Your task to perform on an android device: What's the weather today? Image 0: 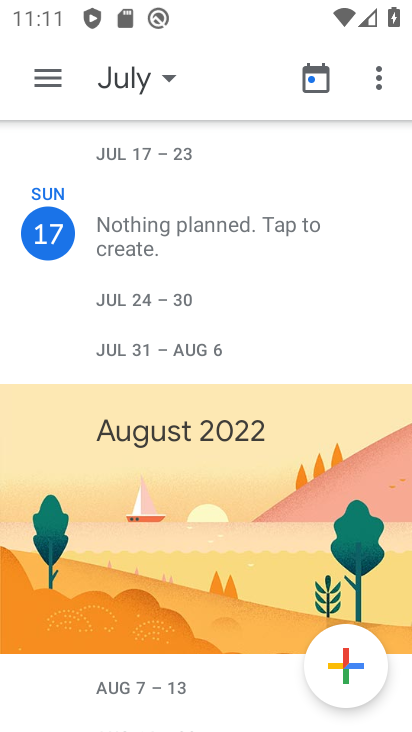
Step 0: press back button
Your task to perform on an android device: What's the weather today? Image 1: 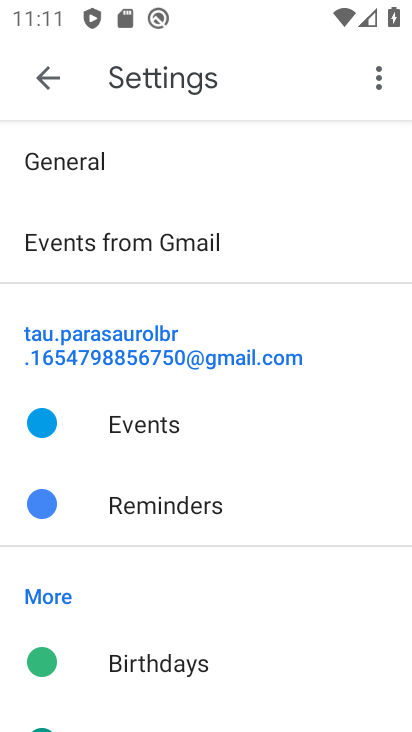
Step 1: press back button
Your task to perform on an android device: What's the weather today? Image 2: 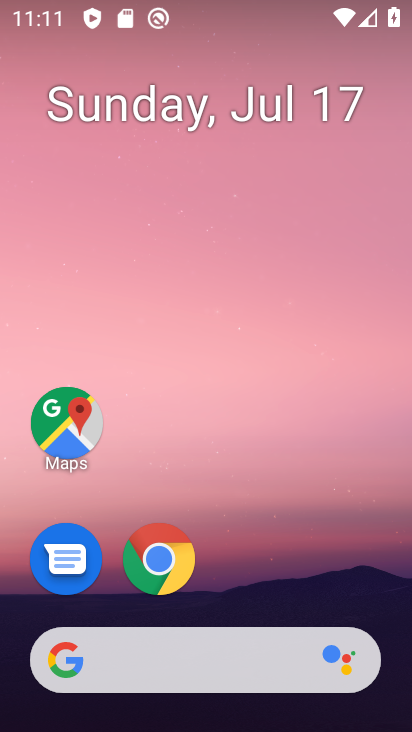
Step 2: click (185, 674)
Your task to perform on an android device: What's the weather today? Image 3: 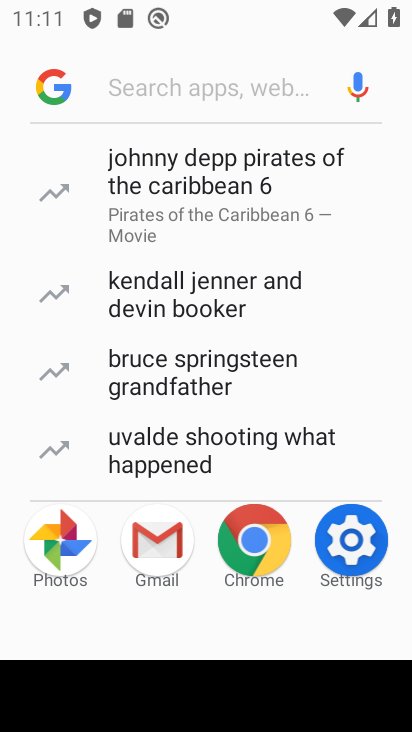
Step 3: click (143, 81)
Your task to perform on an android device: What's the weather today? Image 4: 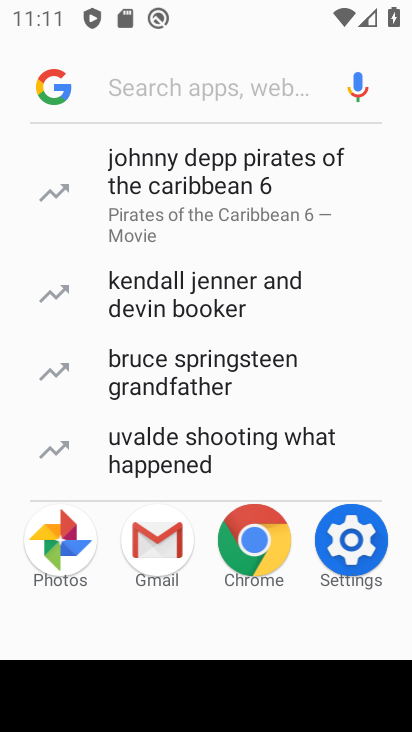
Step 4: type "weather"
Your task to perform on an android device: What's the weather today? Image 5: 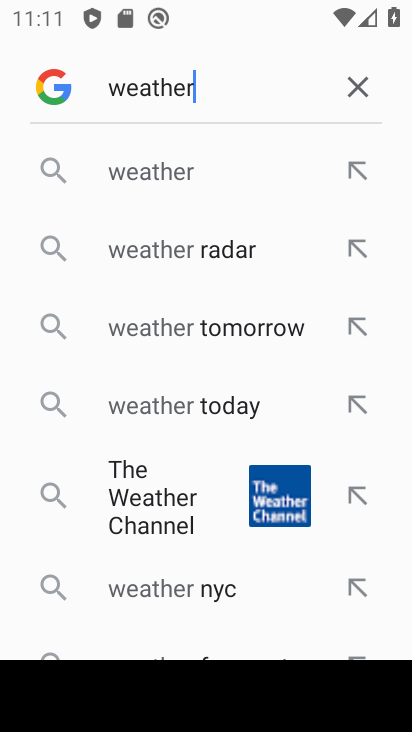
Step 5: click (151, 185)
Your task to perform on an android device: What's the weather today? Image 6: 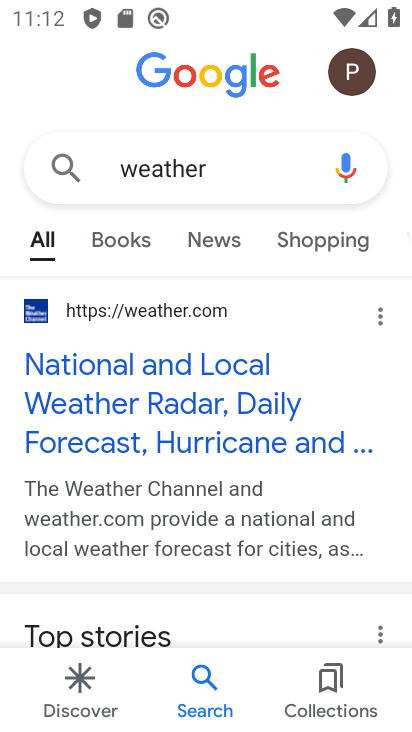
Step 6: drag from (205, 542) to (232, 679)
Your task to perform on an android device: What's the weather today? Image 7: 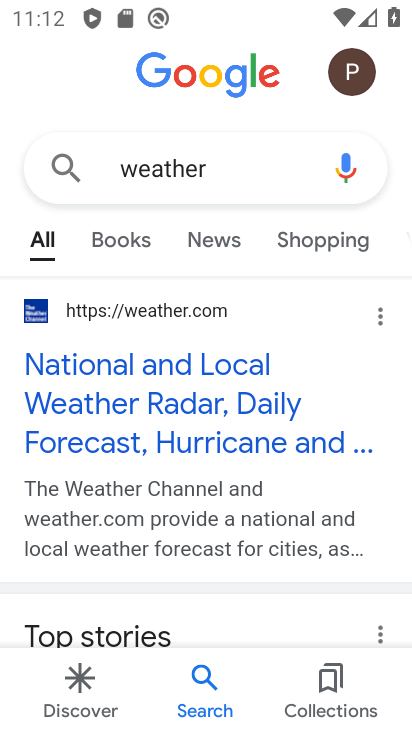
Step 7: click (183, 379)
Your task to perform on an android device: What's the weather today? Image 8: 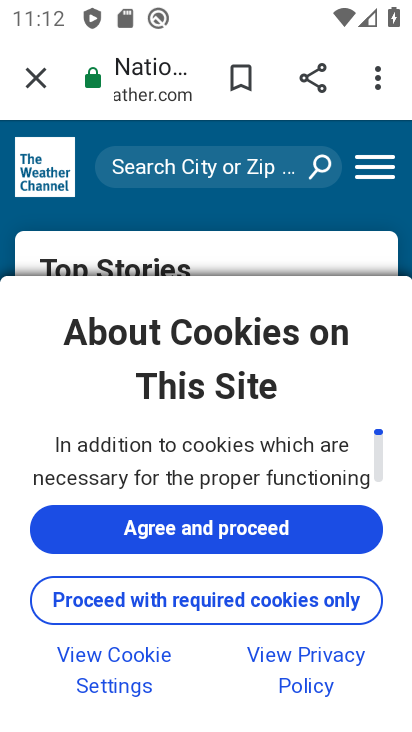
Step 8: click (43, 77)
Your task to perform on an android device: What's the weather today? Image 9: 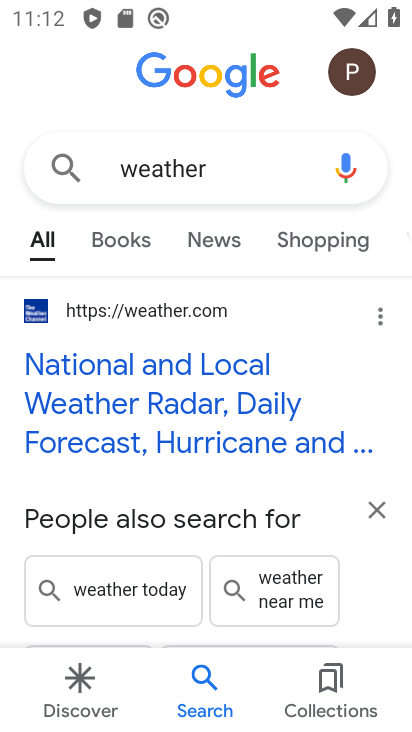
Step 9: press back button
Your task to perform on an android device: What's the weather today? Image 10: 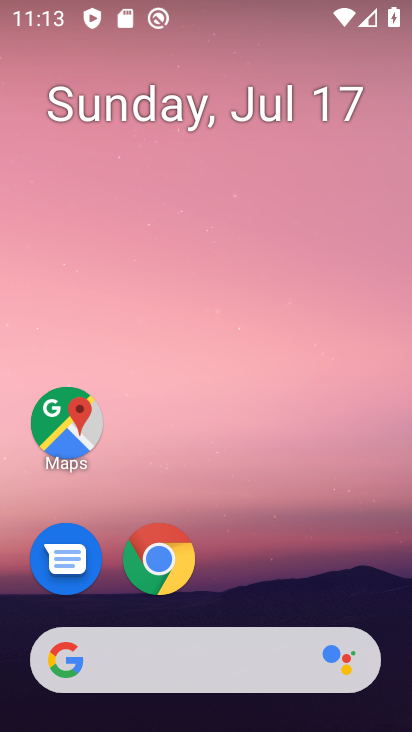
Step 10: click (149, 550)
Your task to perform on an android device: What's the weather today? Image 11: 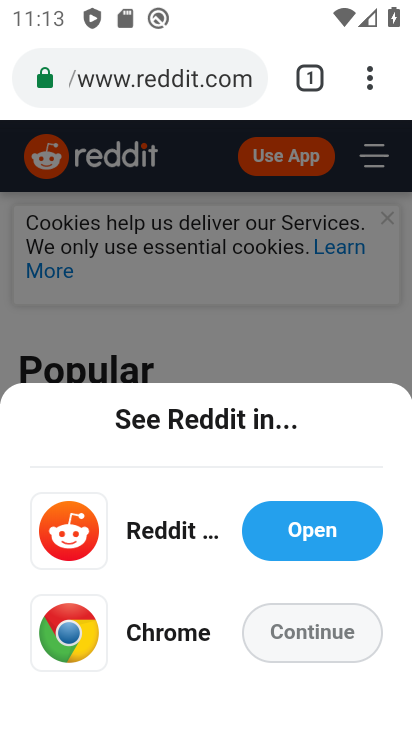
Step 11: click (319, 75)
Your task to perform on an android device: What's the weather today? Image 12: 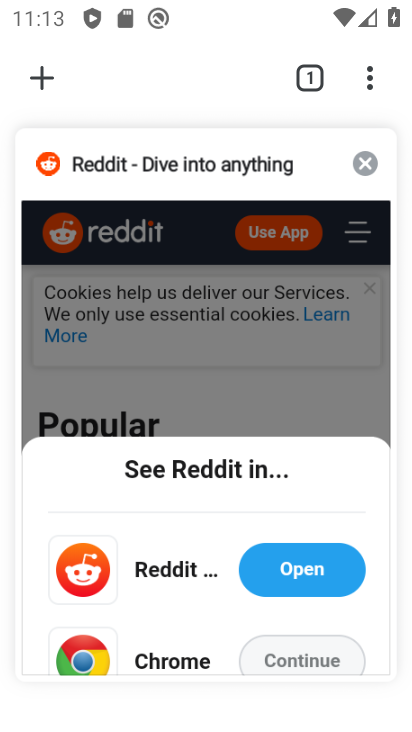
Step 12: click (38, 72)
Your task to perform on an android device: What's the weather today? Image 13: 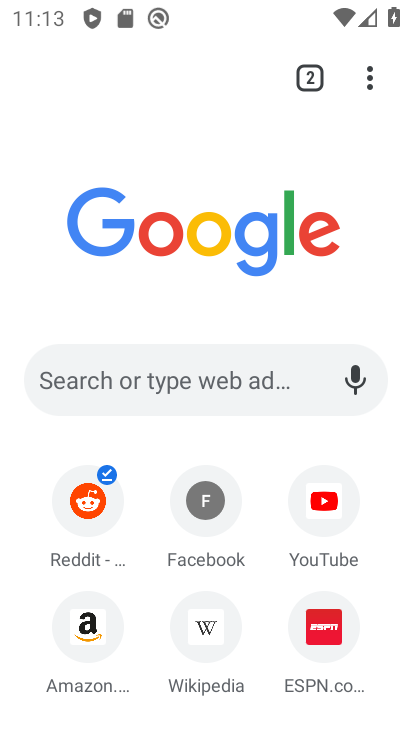
Step 13: click (190, 354)
Your task to perform on an android device: What's the weather today? Image 14: 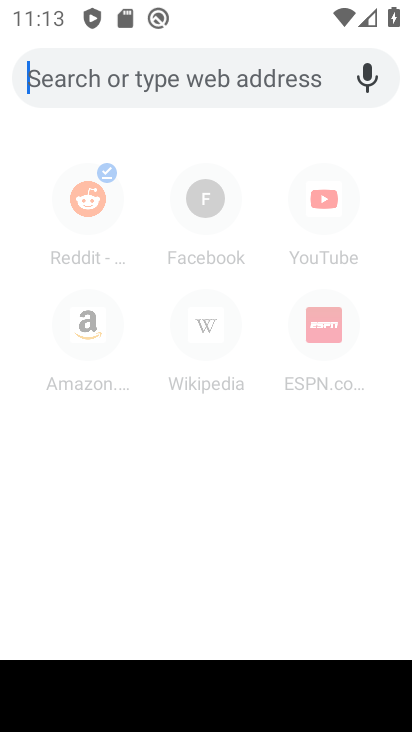
Step 14: type "weather"
Your task to perform on an android device: What's the weather today? Image 15: 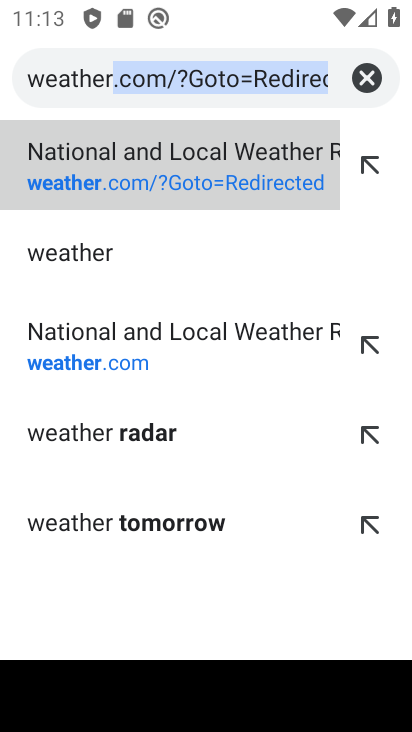
Step 15: click (141, 258)
Your task to perform on an android device: What's the weather today? Image 16: 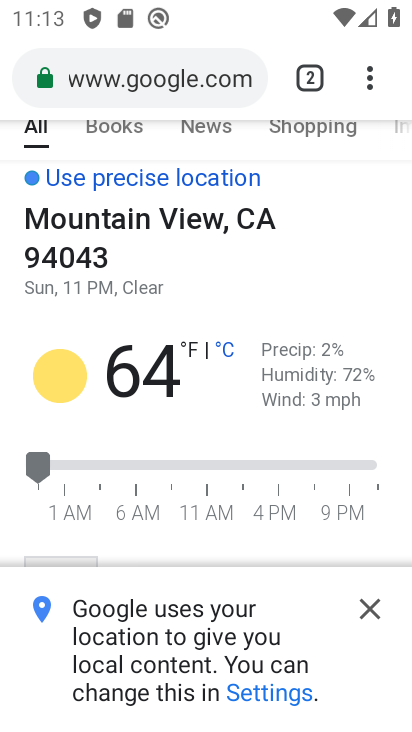
Step 16: task complete